Your task to perform on an android device: Go to location settings Image 0: 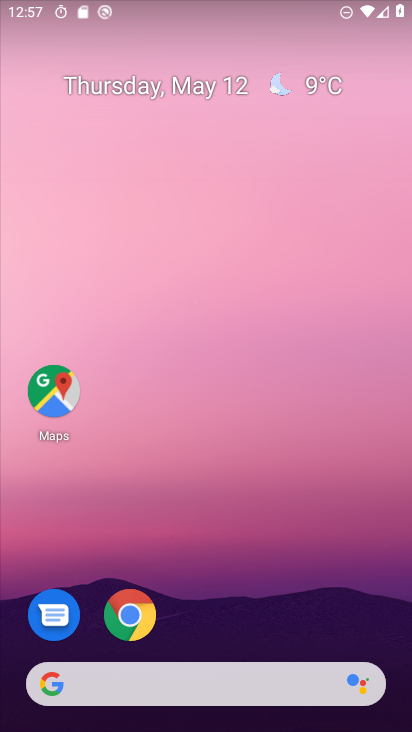
Step 0: drag from (268, 635) to (300, 94)
Your task to perform on an android device: Go to location settings Image 1: 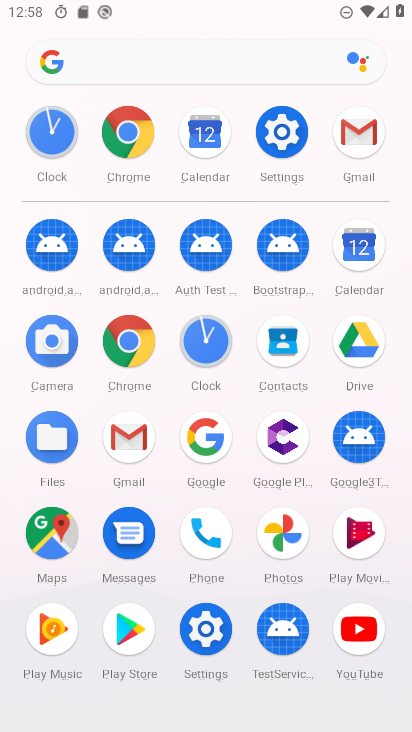
Step 1: click (270, 130)
Your task to perform on an android device: Go to location settings Image 2: 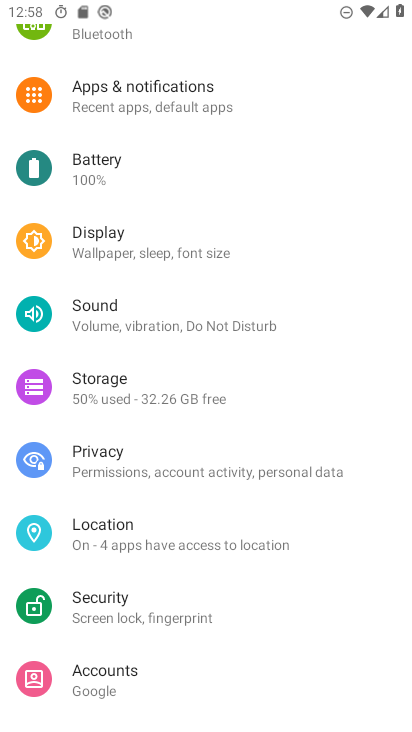
Step 2: drag from (188, 602) to (261, 207)
Your task to perform on an android device: Go to location settings Image 3: 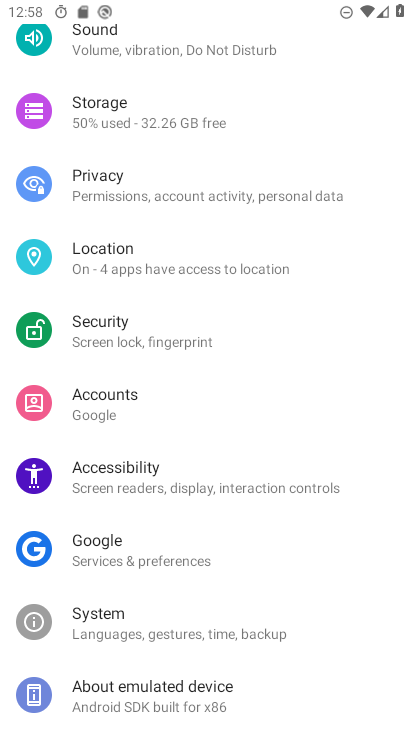
Step 3: click (156, 257)
Your task to perform on an android device: Go to location settings Image 4: 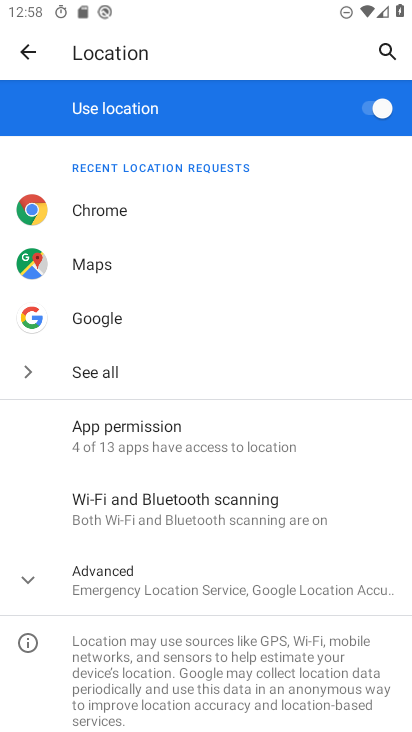
Step 4: task complete